Your task to perform on an android device: Open maps Image 0: 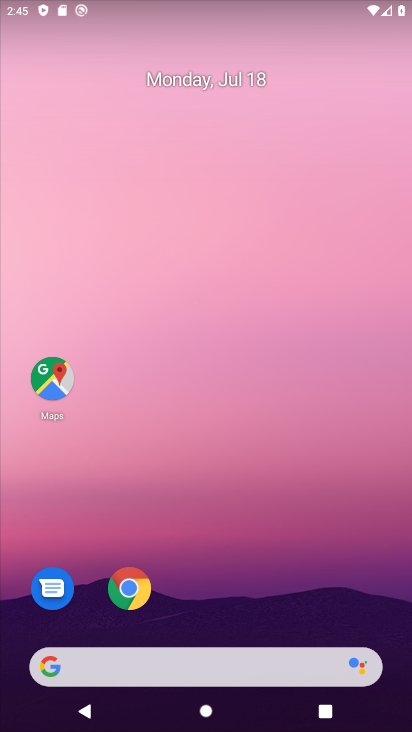
Step 0: click (63, 402)
Your task to perform on an android device: Open maps Image 1: 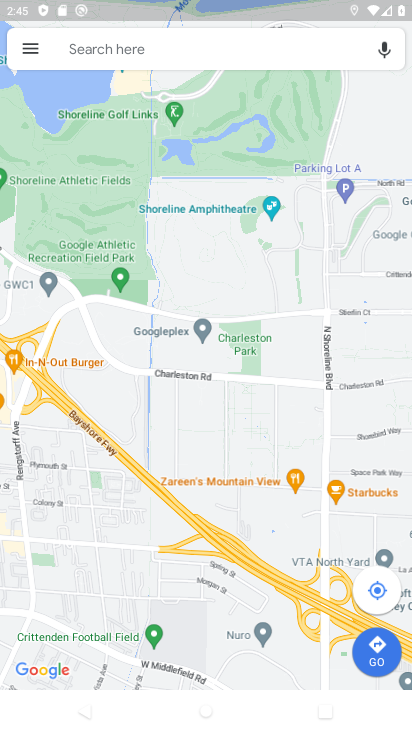
Step 1: task complete